Your task to perform on an android device: clear all cookies in the chrome app Image 0: 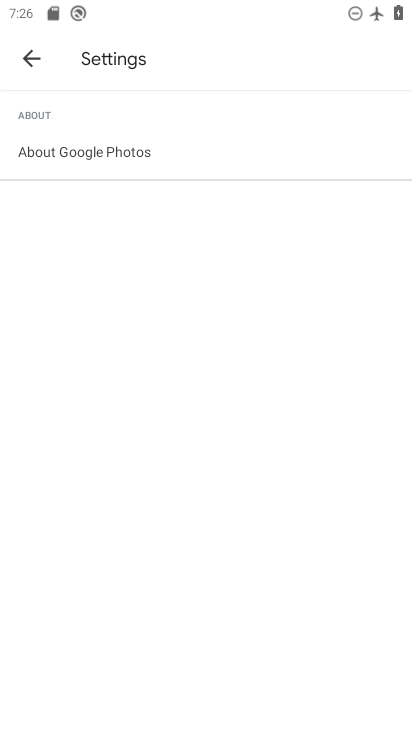
Step 0: press home button
Your task to perform on an android device: clear all cookies in the chrome app Image 1: 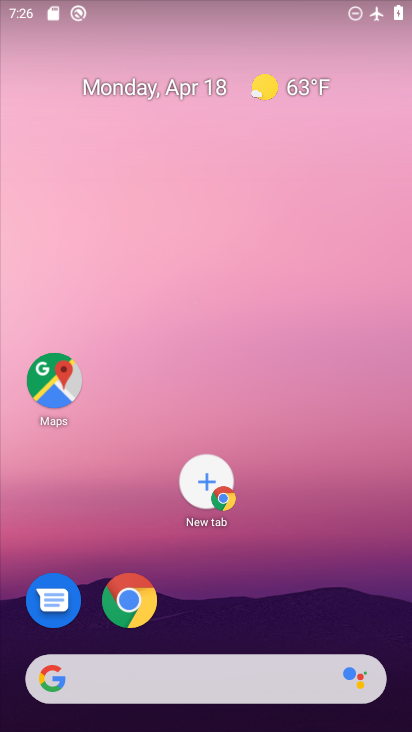
Step 1: click (134, 601)
Your task to perform on an android device: clear all cookies in the chrome app Image 2: 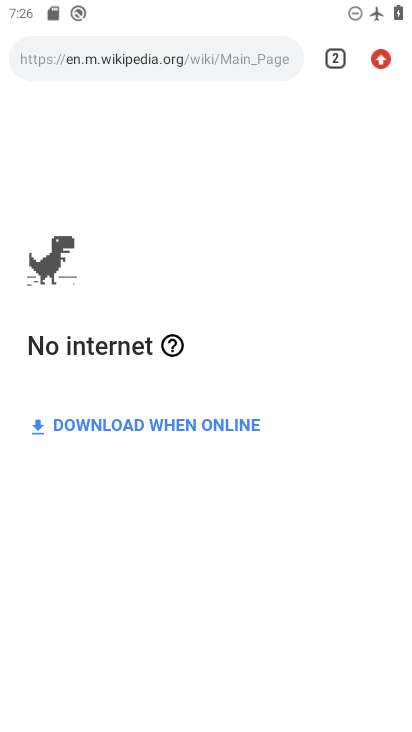
Step 2: click (379, 61)
Your task to perform on an android device: clear all cookies in the chrome app Image 3: 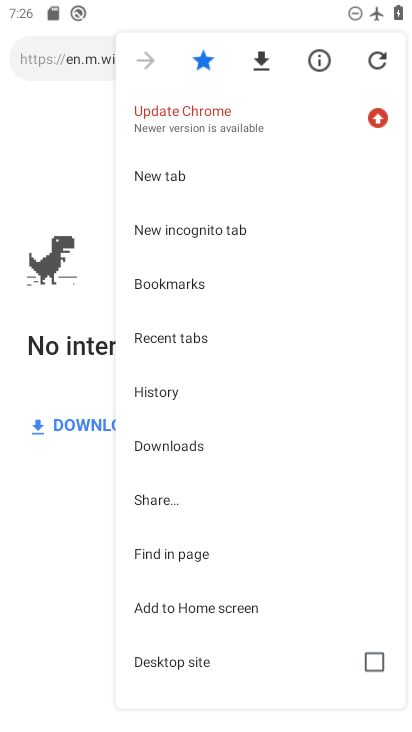
Step 3: drag from (302, 605) to (278, 168)
Your task to perform on an android device: clear all cookies in the chrome app Image 4: 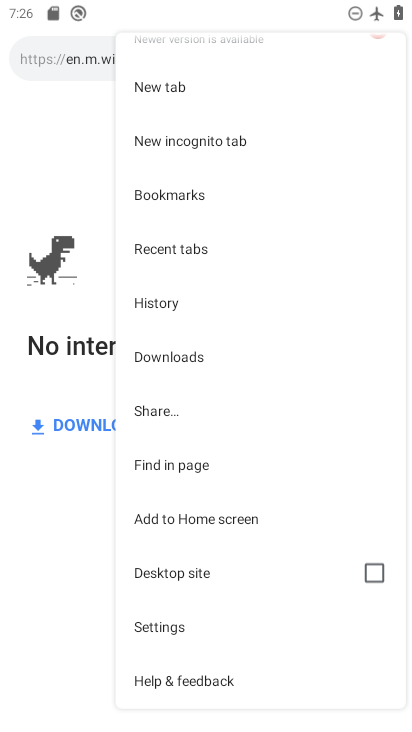
Step 4: click (173, 628)
Your task to perform on an android device: clear all cookies in the chrome app Image 5: 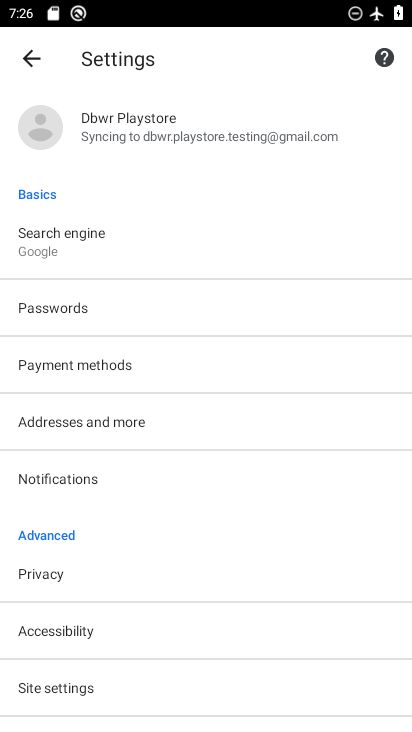
Step 5: click (40, 577)
Your task to perform on an android device: clear all cookies in the chrome app Image 6: 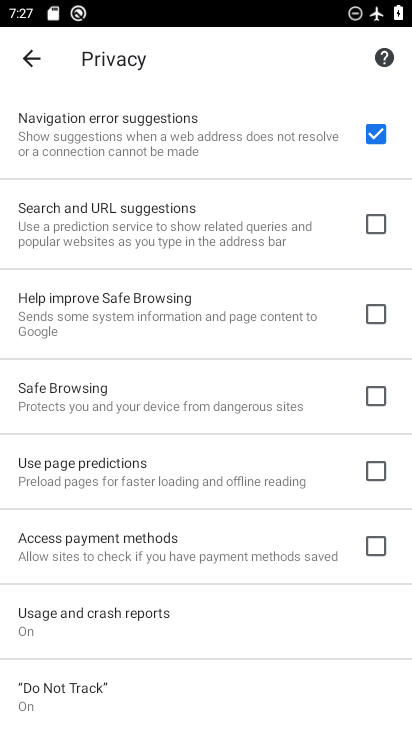
Step 6: drag from (210, 630) to (213, 129)
Your task to perform on an android device: clear all cookies in the chrome app Image 7: 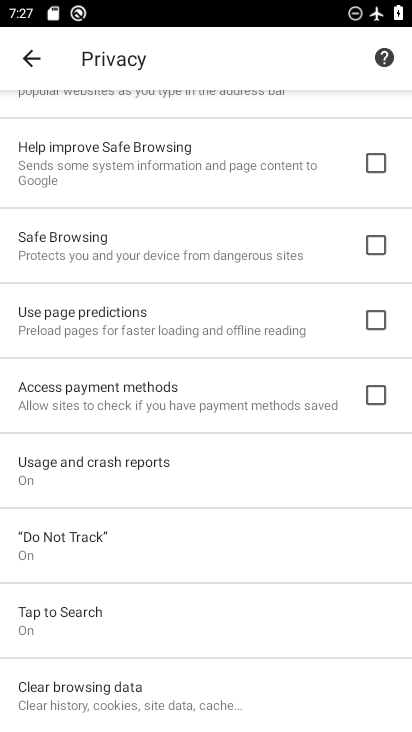
Step 7: click (80, 703)
Your task to perform on an android device: clear all cookies in the chrome app Image 8: 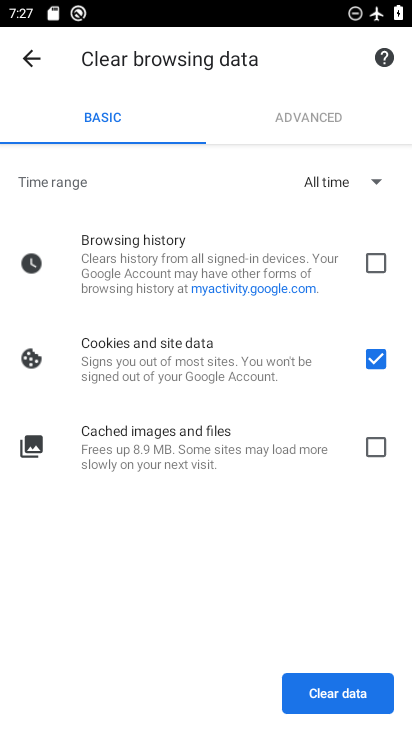
Step 8: click (329, 700)
Your task to perform on an android device: clear all cookies in the chrome app Image 9: 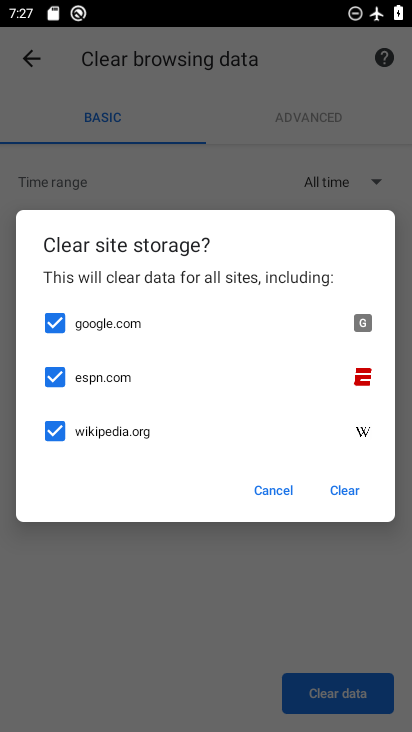
Step 9: click (347, 491)
Your task to perform on an android device: clear all cookies in the chrome app Image 10: 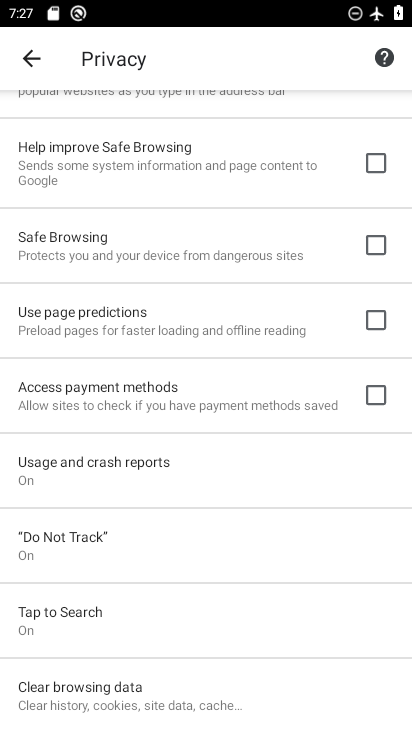
Step 10: task complete